Your task to perform on an android device: Is it going to rain this weekend? Image 0: 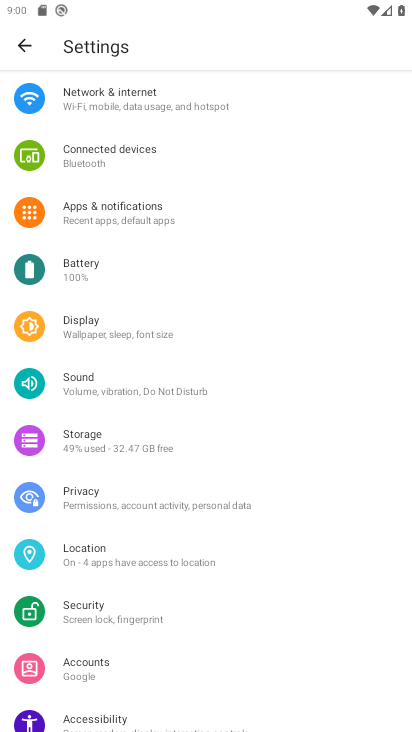
Step 0: press home button
Your task to perform on an android device: Is it going to rain this weekend? Image 1: 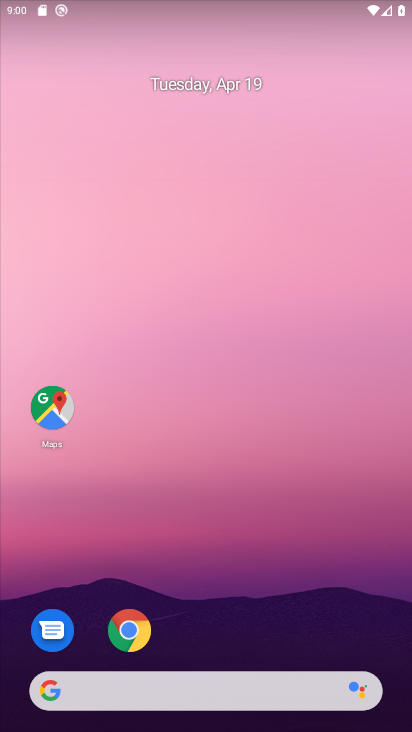
Step 1: drag from (231, 671) to (262, 98)
Your task to perform on an android device: Is it going to rain this weekend? Image 2: 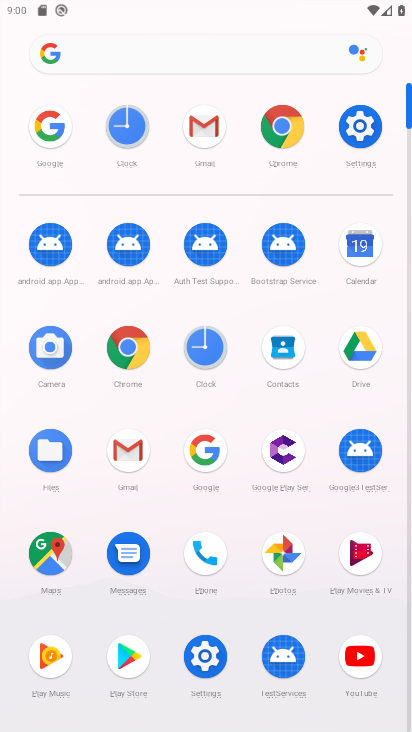
Step 2: click (217, 453)
Your task to perform on an android device: Is it going to rain this weekend? Image 3: 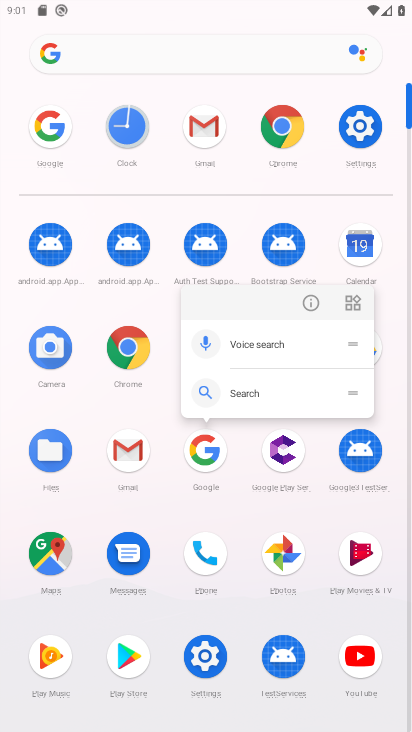
Step 3: click (193, 468)
Your task to perform on an android device: Is it going to rain this weekend? Image 4: 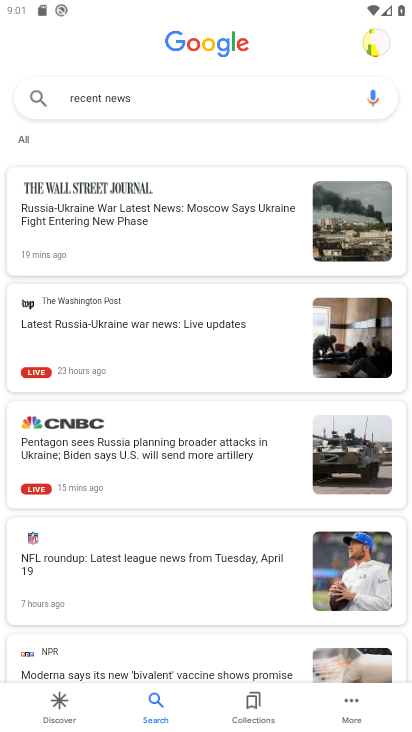
Step 4: click (228, 98)
Your task to perform on an android device: Is it going to rain this weekend? Image 5: 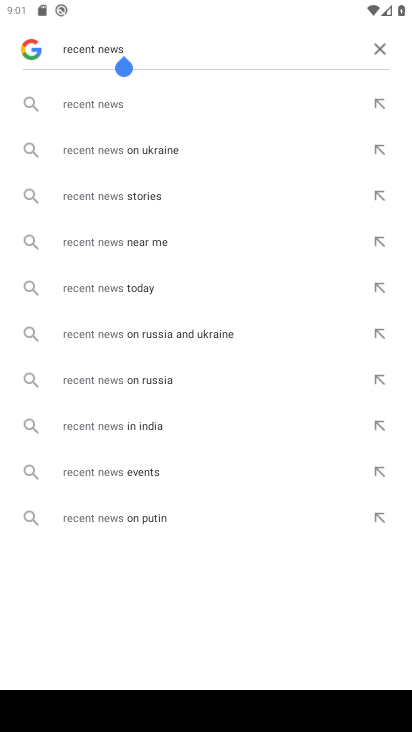
Step 5: click (381, 49)
Your task to perform on an android device: Is it going to rain this weekend? Image 6: 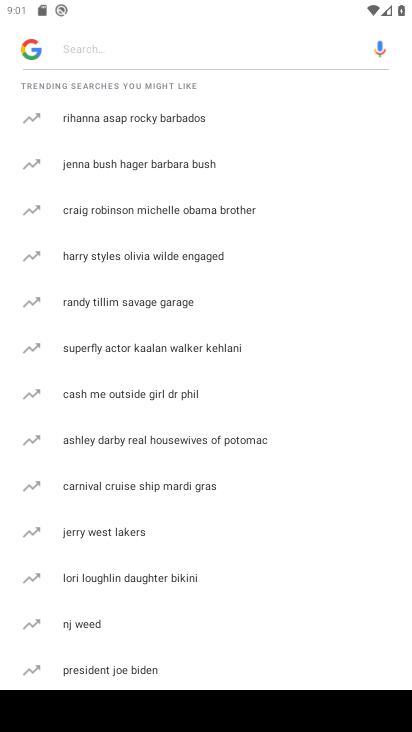
Step 6: type "weather satursday"
Your task to perform on an android device: Is it going to rain this weekend? Image 7: 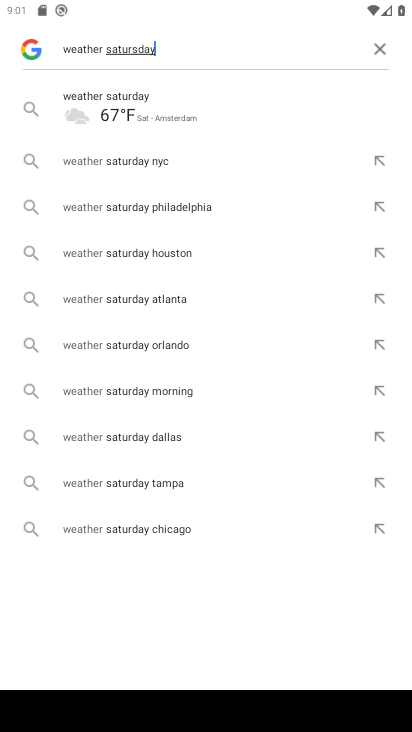
Step 7: click (200, 116)
Your task to perform on an android device: Is it going to rain this weekend? Image 8: 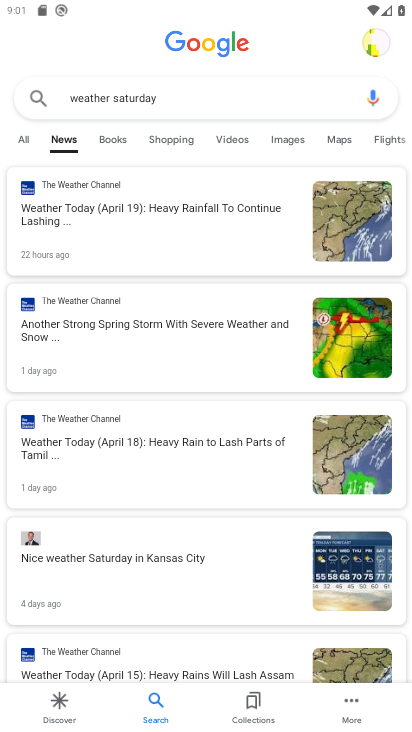
Step 8: click (23, 144)
Your task to perform on an android device: Is it going to rain this weekend? Image 9: 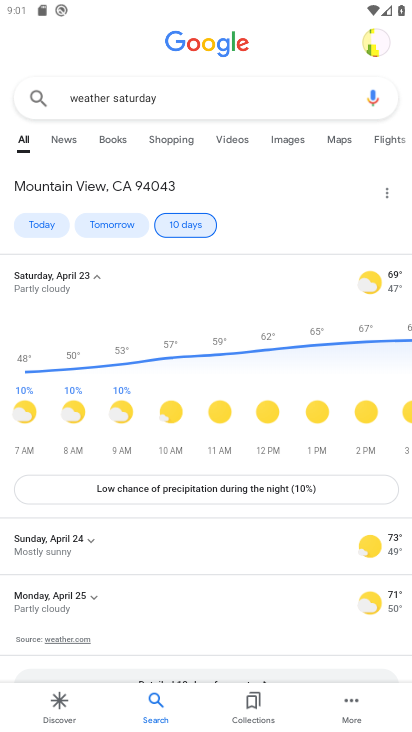
Step 9: task complete